Your task to perform on an android device: Open network settings Image 0: 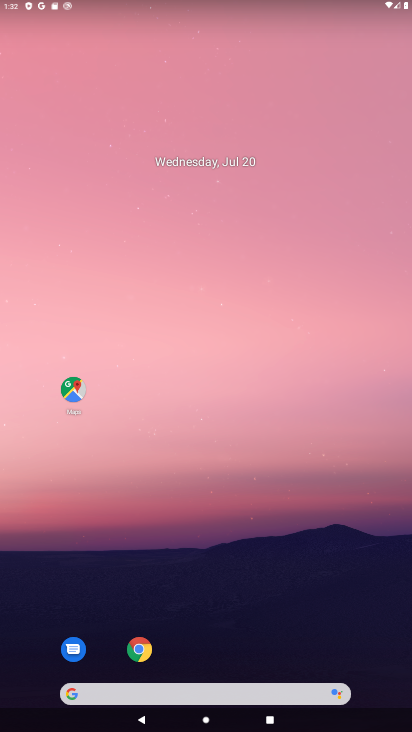
Step 0: drag from (293, 630) to (230, 9)
Your task to perform on an android device: Open network settings Image 1: 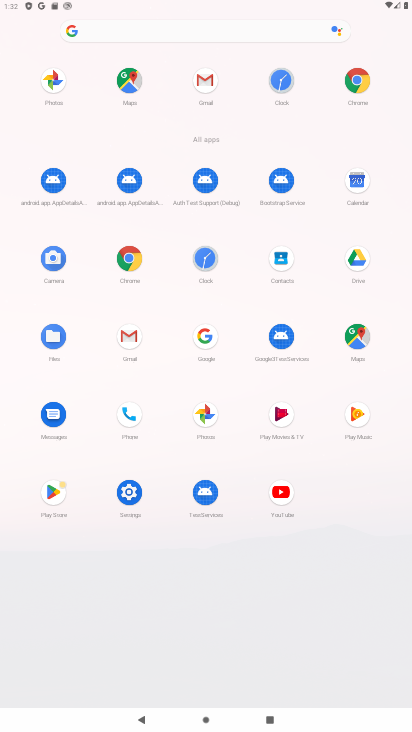
Step 1: click (132, 500)
Your task to perform on an android device: Open network settings Image 2: 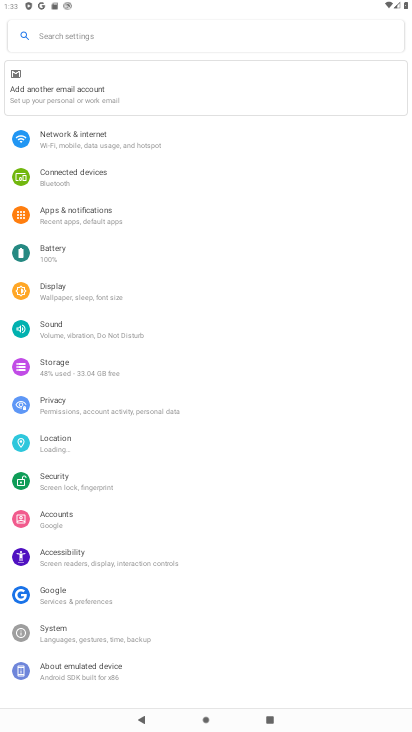
Step 2: click (228, 134)
Your task to perform on an android device: Open network settings Image 3: 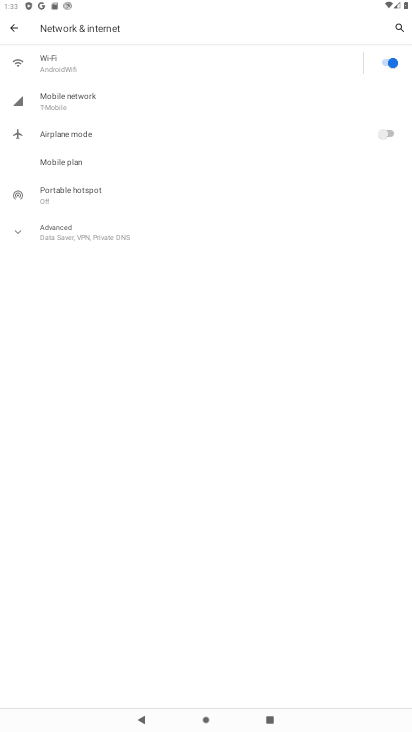
Step 3: task complete